Your task to perform on an android device: Open calendar and show me the first week of next month Image 0: 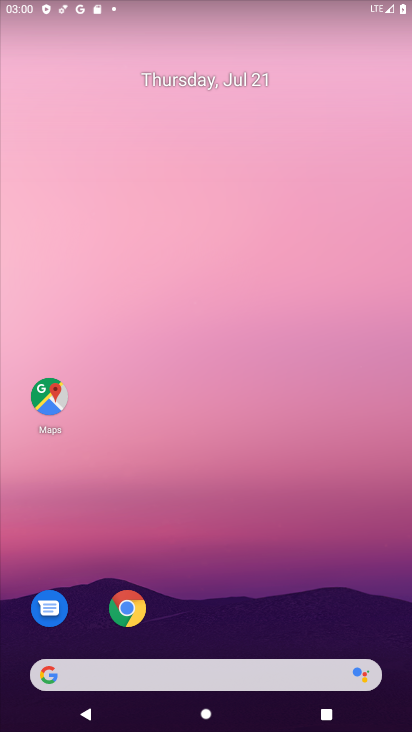
Step 0: drag from (197, 640) to (162, 82)
Your task to perform on an android device: Open calendar and show me the first week of next month Image 1: 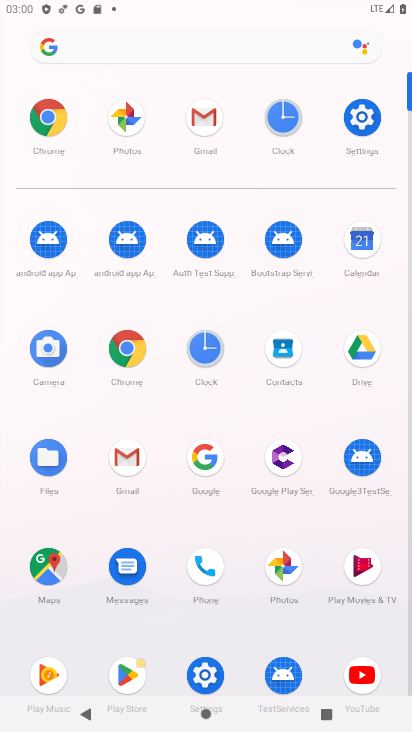
Step 1: click (365, 248)
Your task to perform on an android device: Open calendar and show me the first week of next month Image 2: 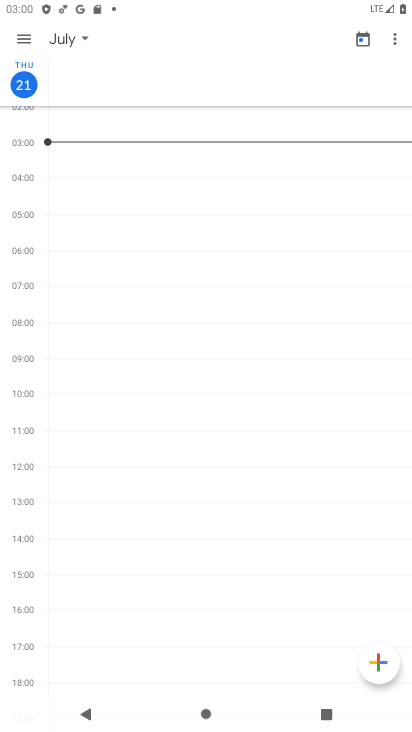
Step 2: click (12, 34)
Your task to perform on an android device: Open calendar and show me the first week of next month Image 3: 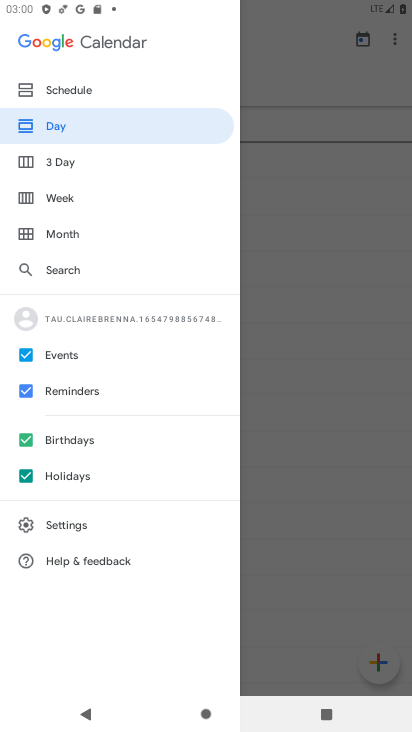
Step 3: click (86, 202)
Your task to perform on an android device: Open calendar and show me the first week of next month Image 4: 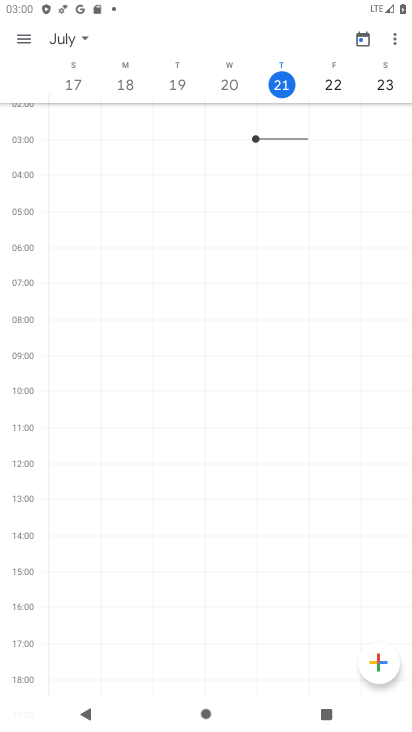
Step 4: task complete